Your task to perform on an android device: change the clock style Image 0: 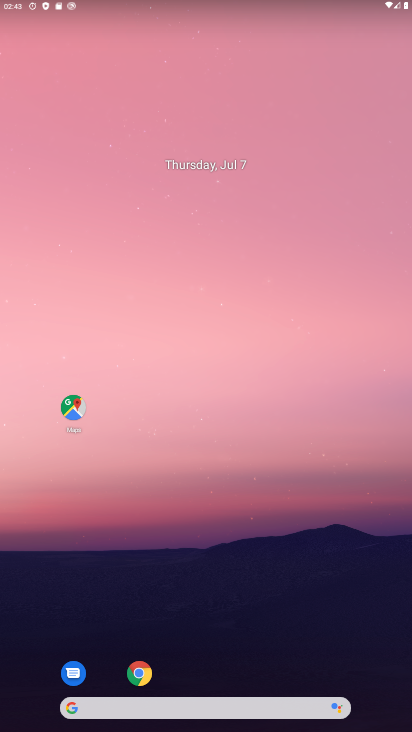
Step 0: drag from (202, 660) to (208, 255)
Your task to perform on an android device: change the clock style Image 1: 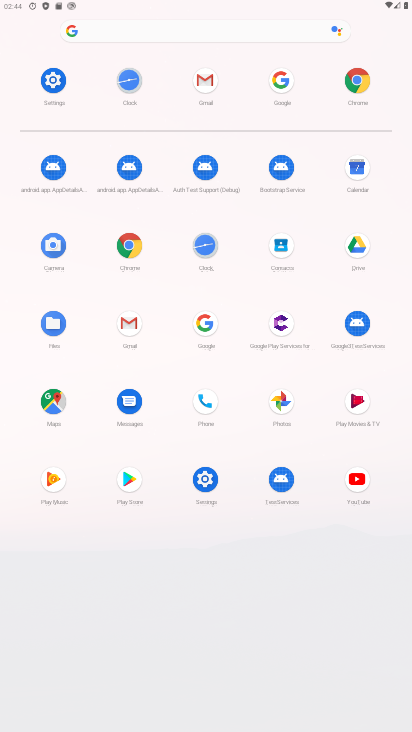
Step 1: click (125, 85)
Your task to perform on an android device: change the clock style Image 2: 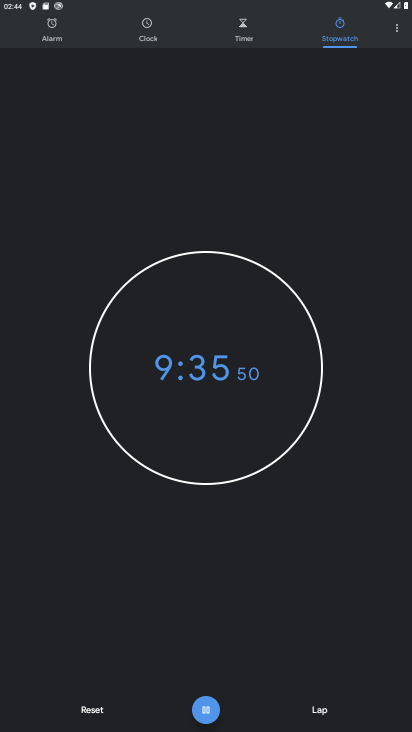
Step 2: click (401, 34)
Your task to perform on an android device: change the clock style Image 3: 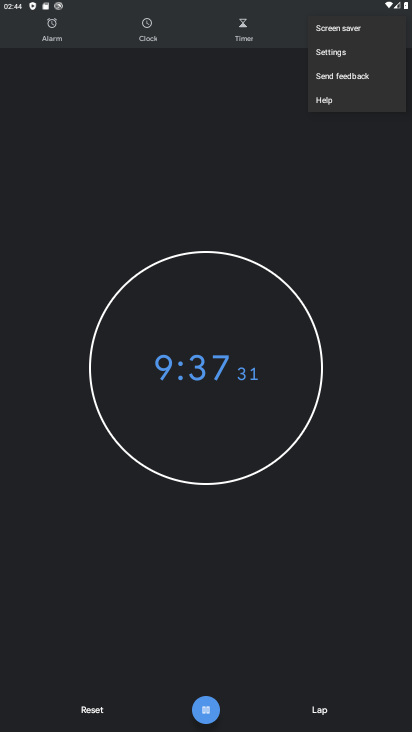
Step 3: click (377, 48)
Your task to perform on an android device: change the clock style Image 4: 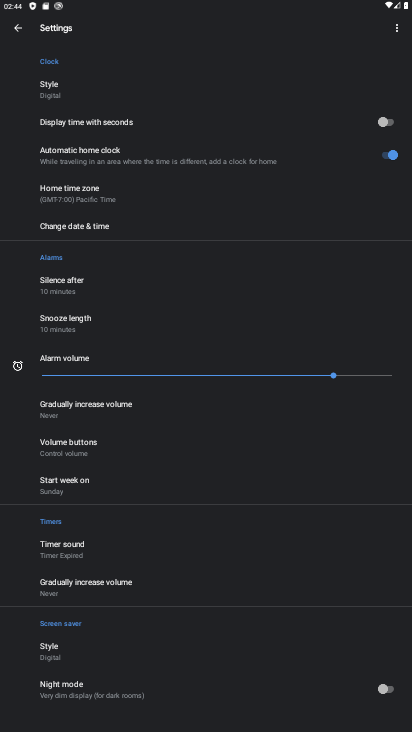
Step 4: click (68, 87)
Your task to perform on an android device: change the clock style Image 5: 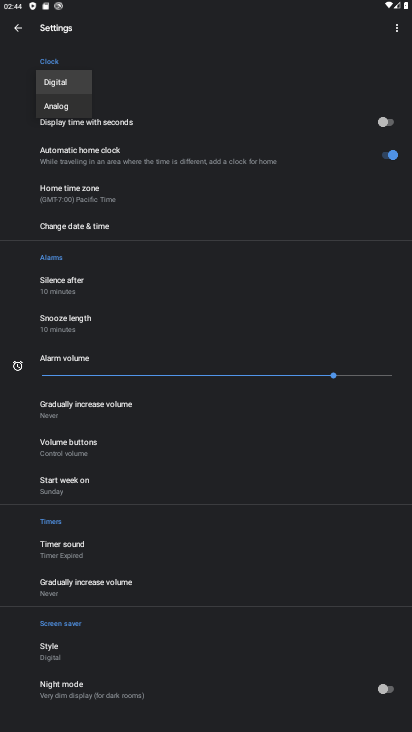
Step 5: click (69, 109)
Your task to perform on an android device: change the clock style Image 6: 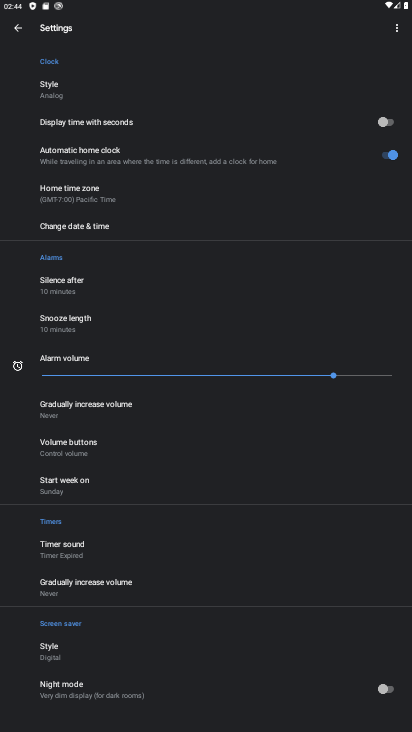
Step 6: task complete